Your task to perform on an android device: change the clock style Image 0: 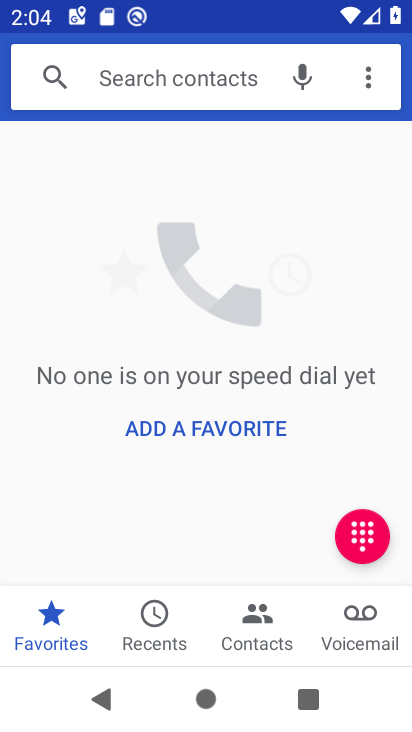
Step 0: press home button
Your task to perform on an android device: change the clock style Image 1: 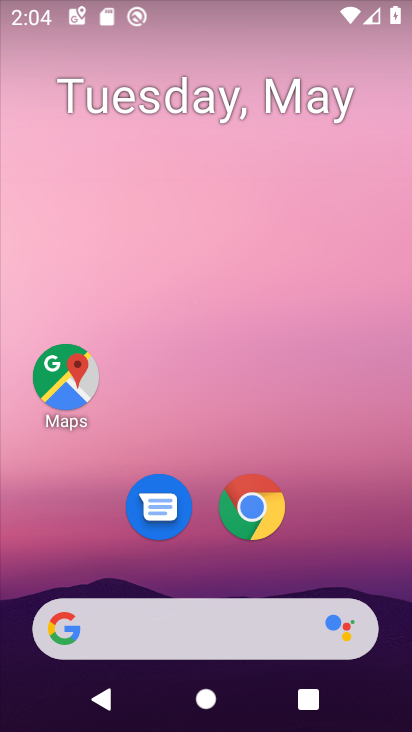
Step 1: drag from (231, 578) to (238, 207)
Your task to perform on an android device: change the clock style Image 2: 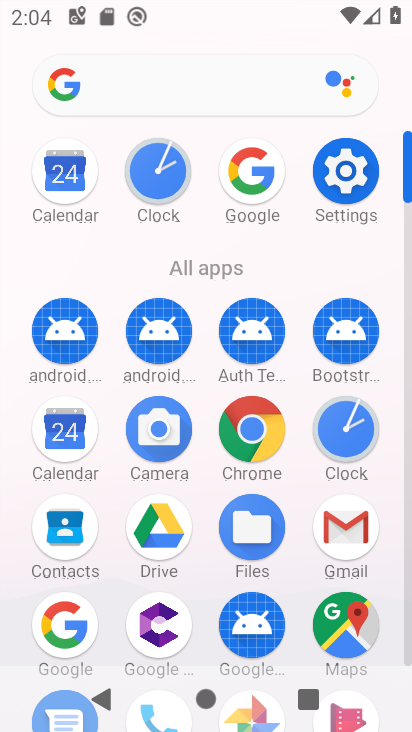
Step 2: click (350, 428)
Your task to perform on an android device: change the clock style Image 3: 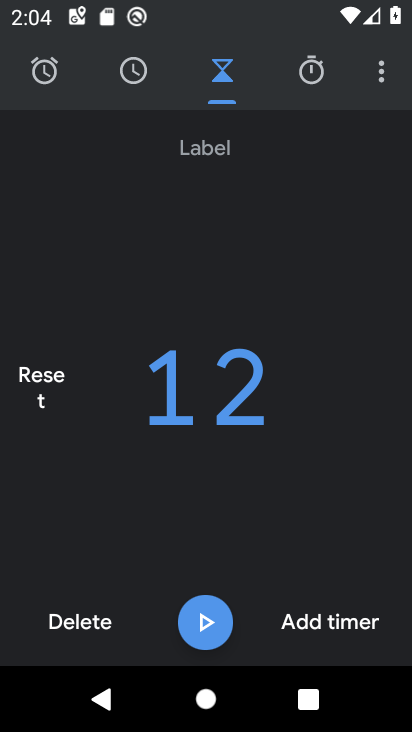
Step 3: click (386, 74)
Your task to perform on an android device: change the clock style Image 4: 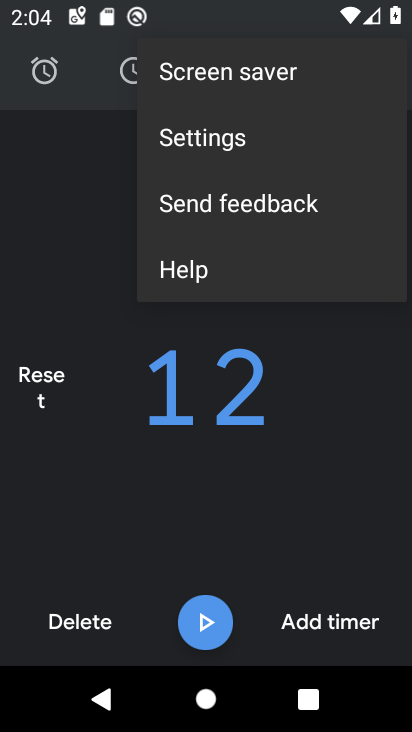
Step 4: click (262, 136)
Your task to perform on an android device: change the clock style Image 5: 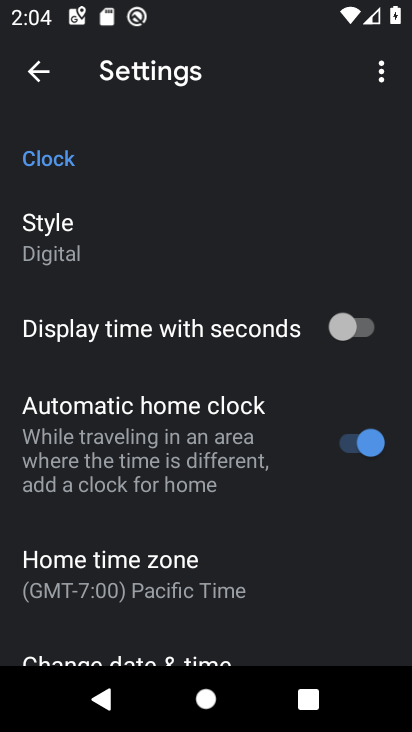
Step 5: click (174, 226)
Your task to perform on an android device: change the clock style Image 6: 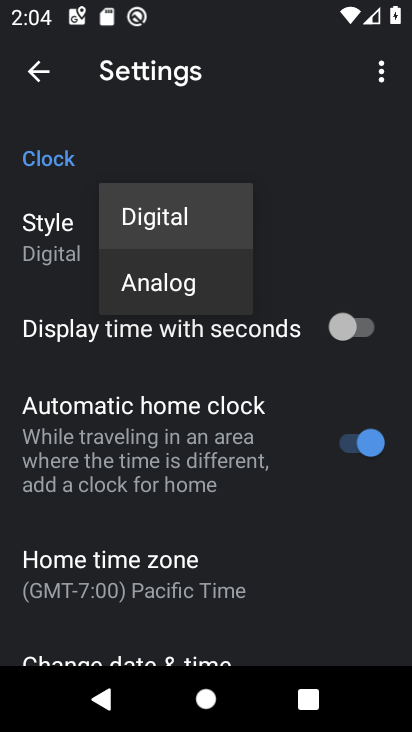
Step 6: click (163, 289)
Your task to perform on an android device: change the clock style Image 7: 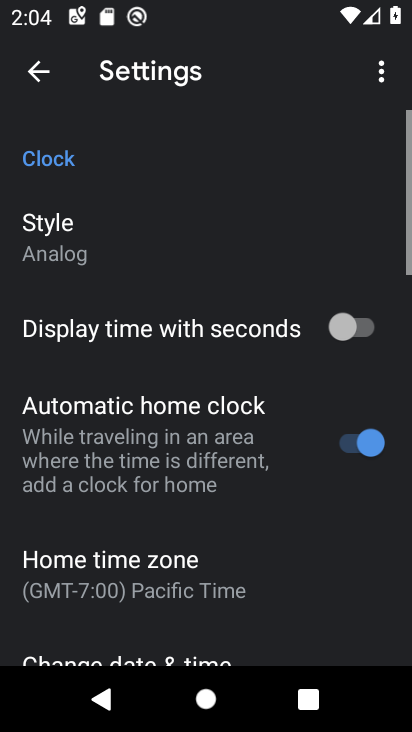
Step 7: task complete